Your task to perform on an android device: turn on bluetooth scan Image 0: 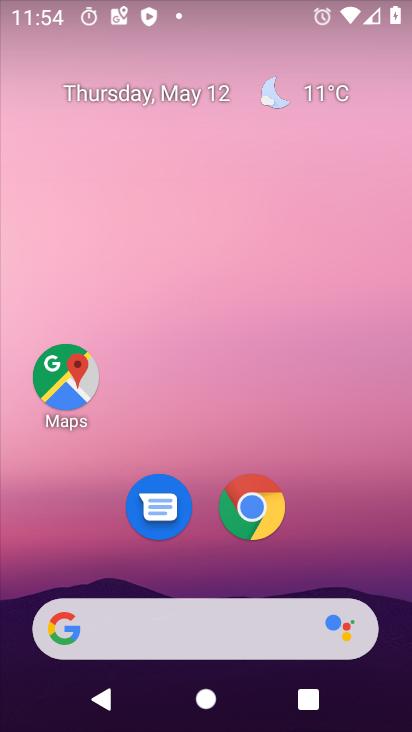
Step 0: drag from (177, 463) to (252, 56)
Your task to perform on an android device: turn on bluetooth scan Image 1: 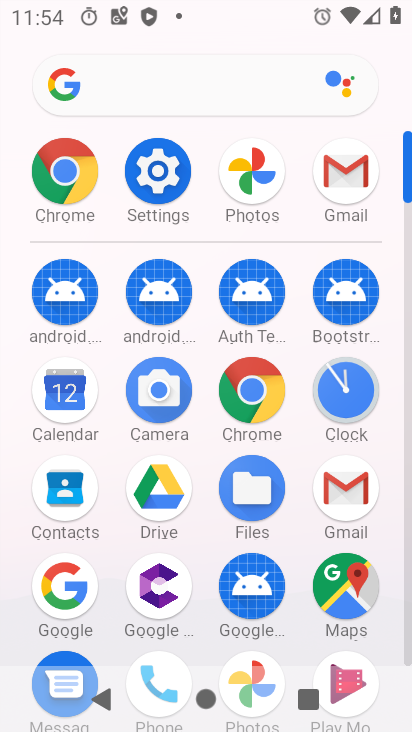
Step 1: click (174, 185)
Your task to perform on an android device: turn on bluetooth scan Image 2: 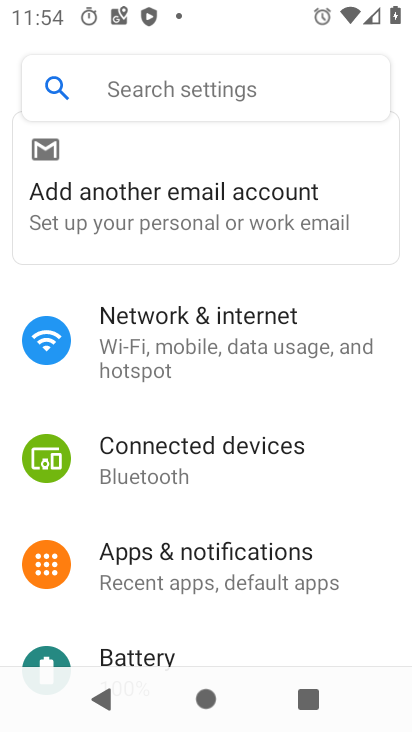
Step 2: drag from (216, 519) to (222, 161)
Your task to perform on an android device: turn on bluetooth scan Image 3: 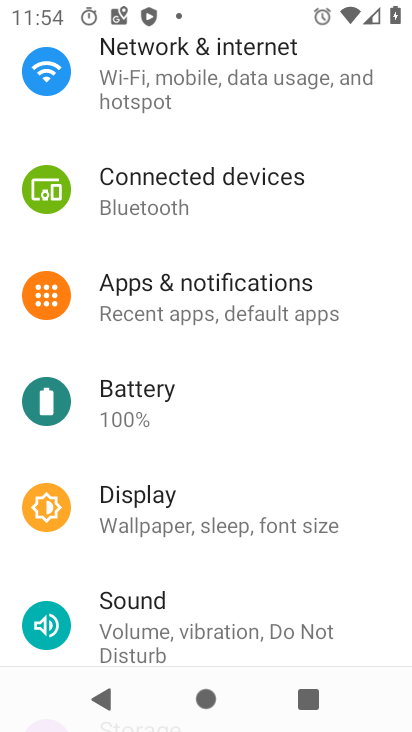
Step 3: drag from (211, 563) to (233, 247)
Your task to perform on an android device: turn on bluetooth scan Image 4: 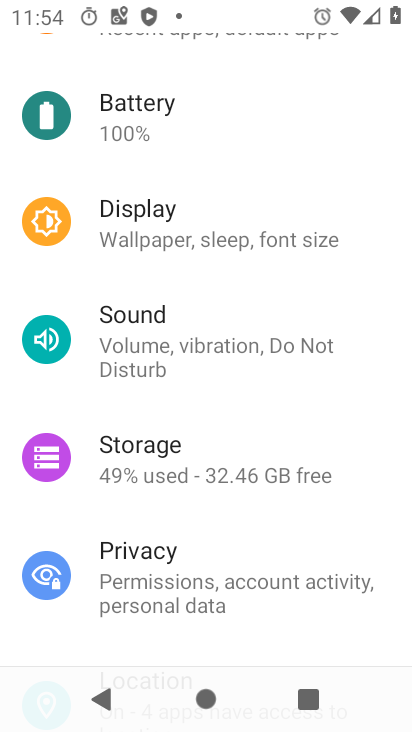
Step 4: drag from (203, 601) to (227, 223)
Your task to perform on an android device: turn on bluetooth scan Image 5: 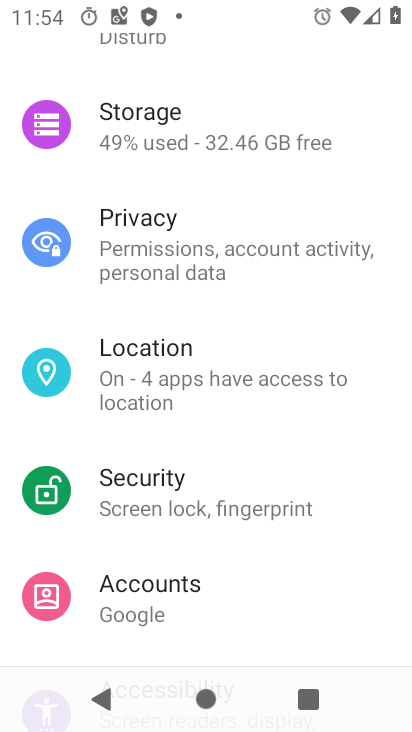
Step 5: click (174, 392)
Your task to perform on an android device: turn on bluetooth scan Image 6: 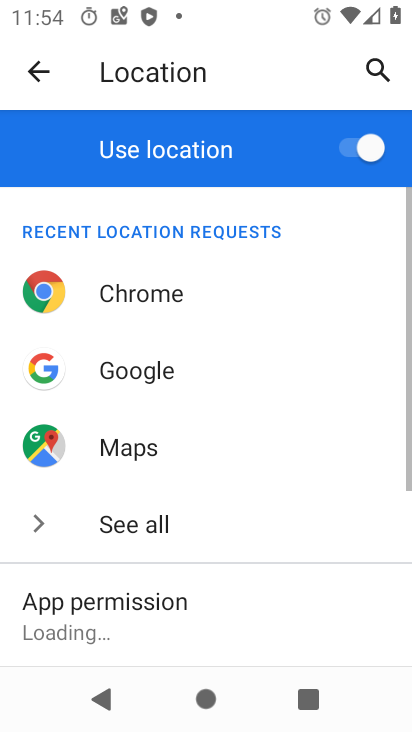
Step 6: drag from (175, 606) to (218, 274)
Your task to perform on an android device: turn on bluetooth scan Image 7: 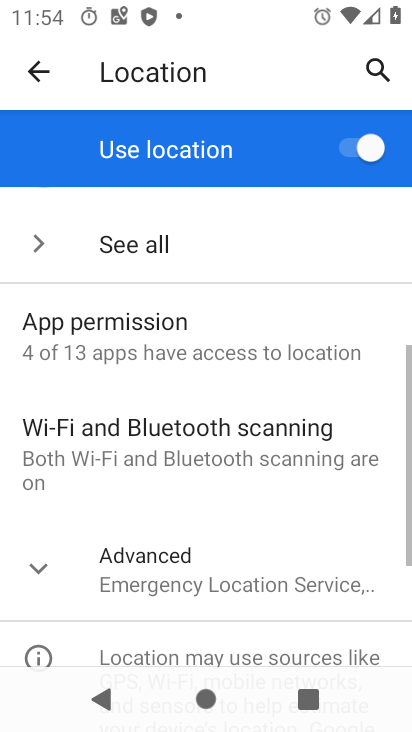
Step 7: click (218, 594)
Your task to perform on an android device: turn on bluetooth scan Image 8: 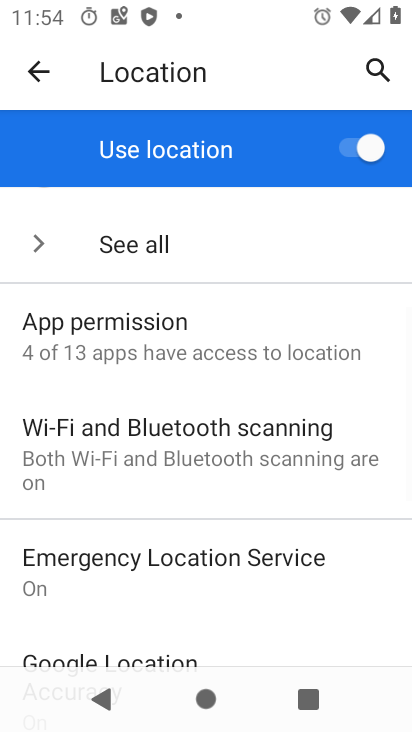
Step 8: drag from (232, 625) to (254, 295)
Your task to perform on an android device: turn on bluetooth scan Image 9: 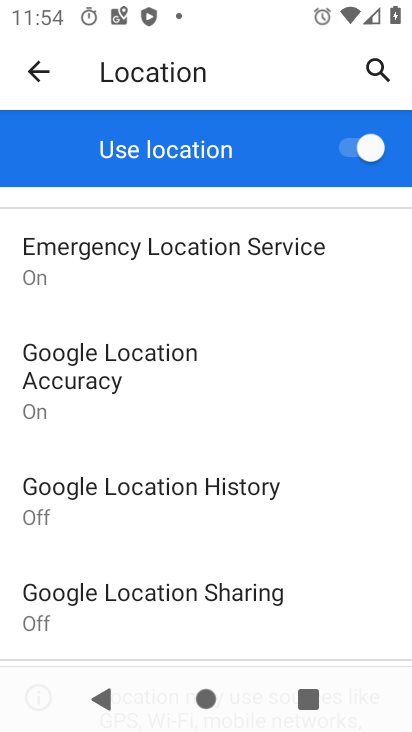
Step 9: drag from (208, 587) to (219, 370)
Your task to perform on an android device: turn on bluetooth scan Image 10: 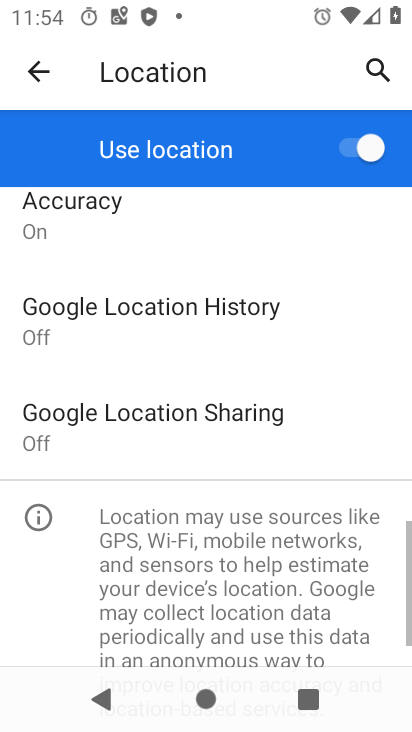
Step 10: drag from (219, 369) to (216, 718)
Your task to perform on an android device: turn on bluetooth scan Image 11: 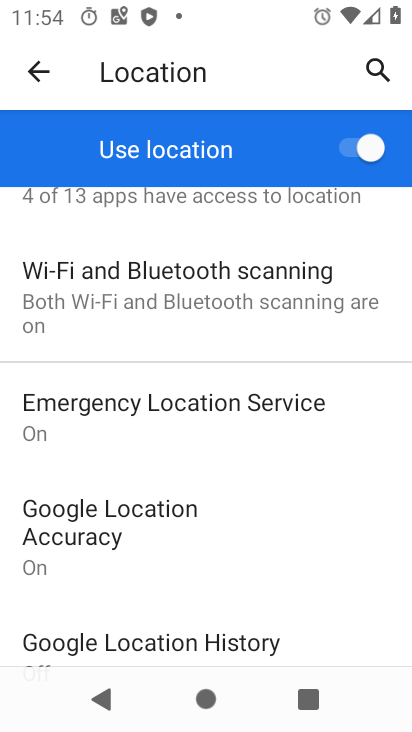
Step 11: click (210, 297)
Your task to perform on an android device: turn on bluetooth scan Image 12: 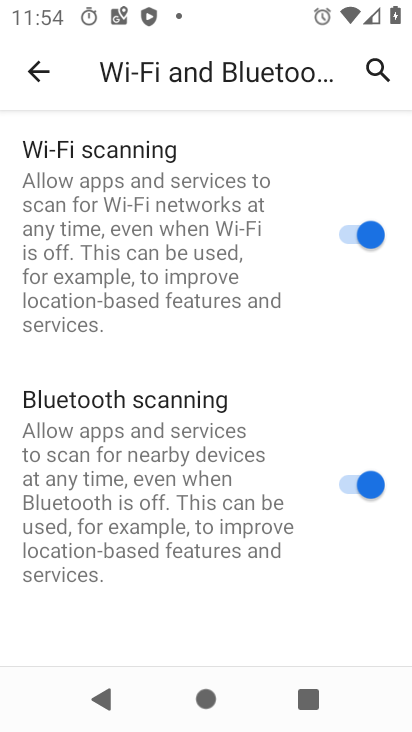
Step 12: task complete